Your task to perform on an android device: Show me popular games on the Play Store Image 0: 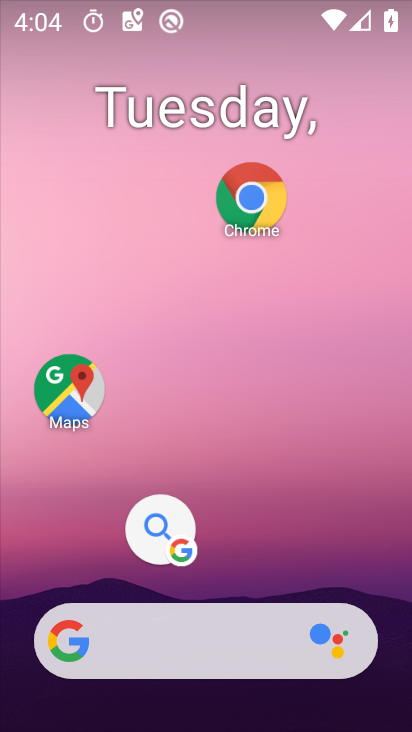
Step 0: drag from (183, 599) to (292, 163)
Your task to perform on an android device: Show me popular games on the Play Store Image 1: 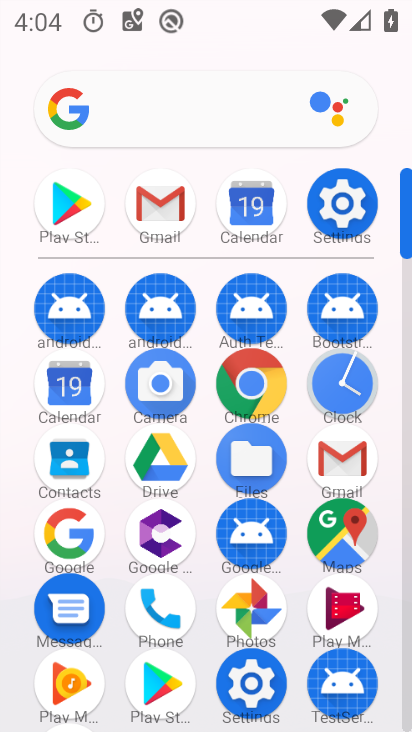
Step 1: click (156, 683)
Your task to perform on an android device: Show me popular games on the Play Store Image 2: 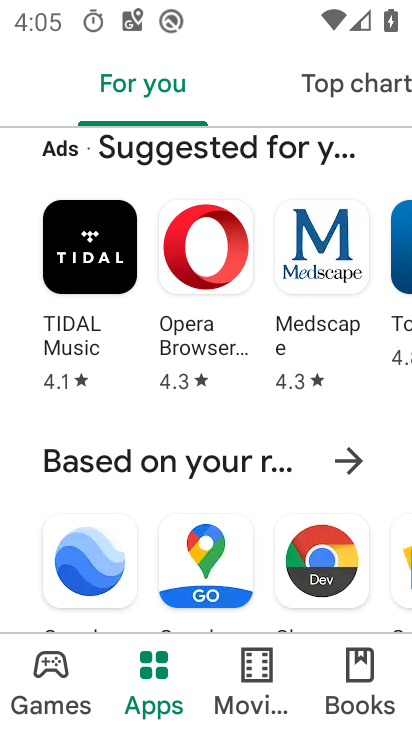
Step 2: press back button
Your task to perform on an android device: Show me popular games on the Play Store Image 3: 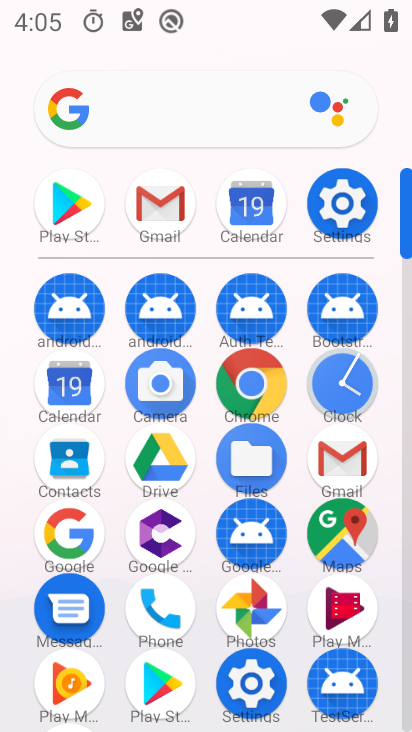
Step 3: click (73, 197)
Your task to perform on an android device: Show me popular games on the Play Store Image 4: 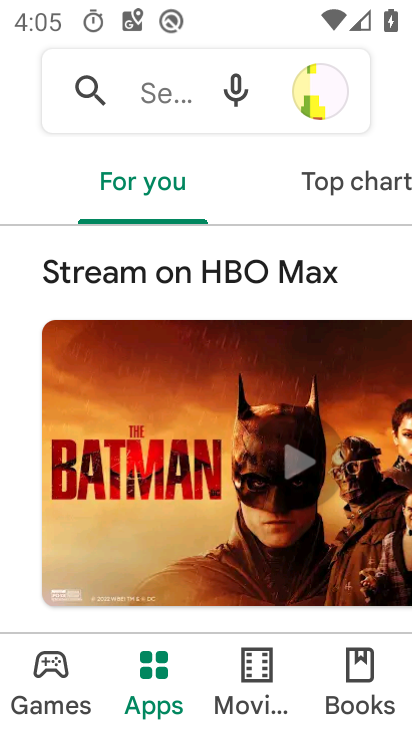
Step 4: click (197, 85)
Your task to perform on an android device: Show me popular games on the Play Store Image 5: 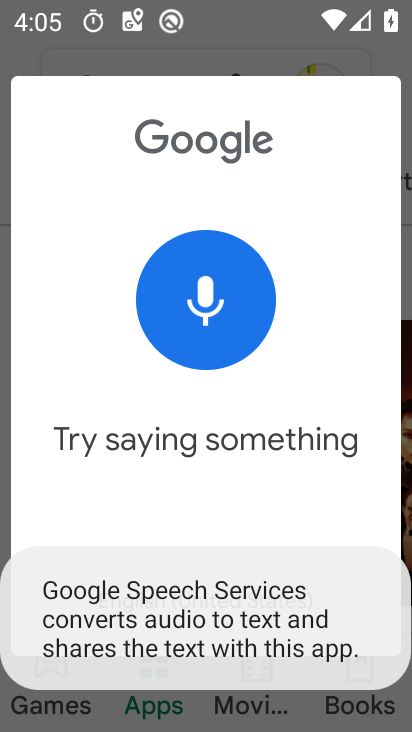
Step 5: click (204, 285)
Your task to perform on an android device: Show me popular games on the Play Store Image 6: 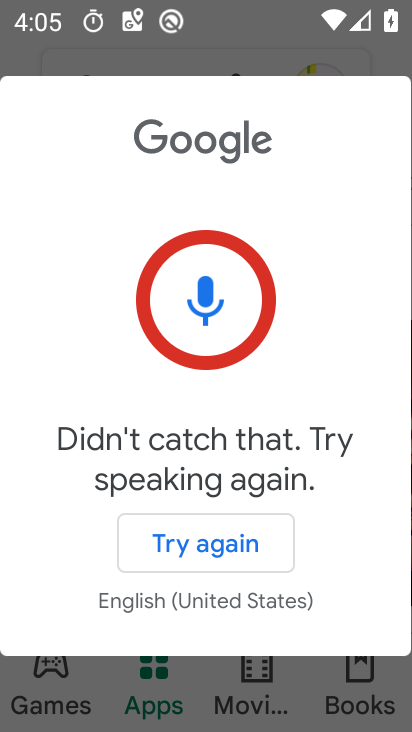
Step 6: click (191, 533)
Your task to perform on an android device: Show me popular games on the Play Store Image 7: 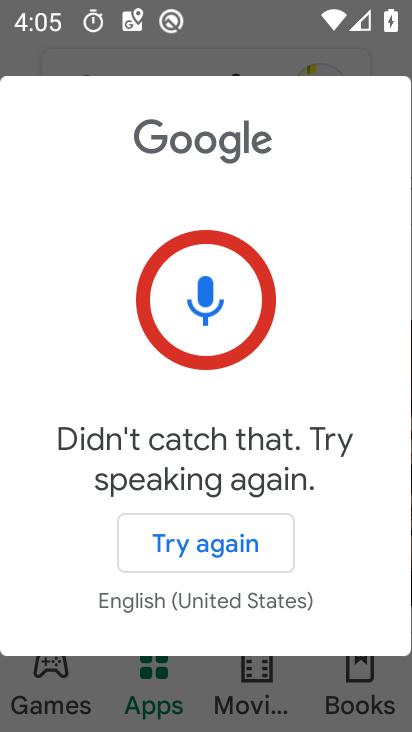
Step 7: click (296, 724)
Your task to perform on an android device: Show me popular games on the Play Store Image 8: 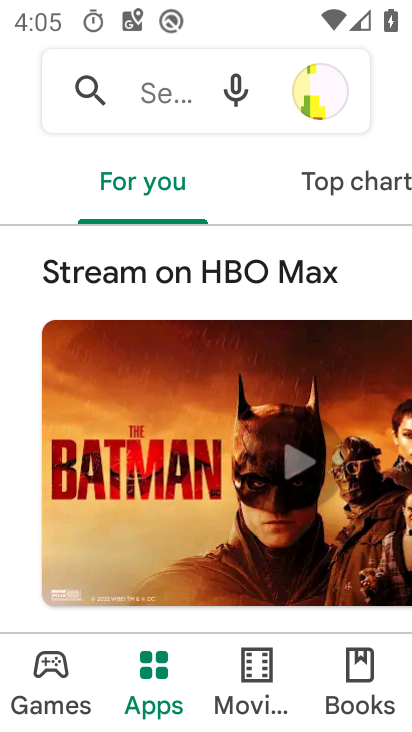
Step 8: click (173, 101)
Your task to perform on an android device: Show me popular games on the Play Store Image 9: 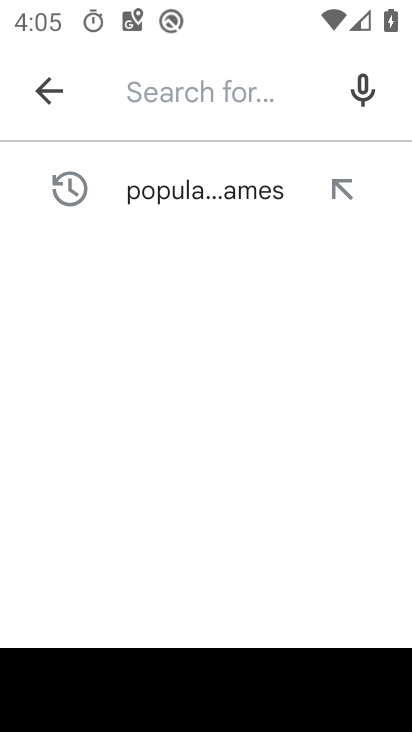
Step 9: click (189, 198)
Your task to perform on an android device: Show me popular games on the Play Store Image 10: 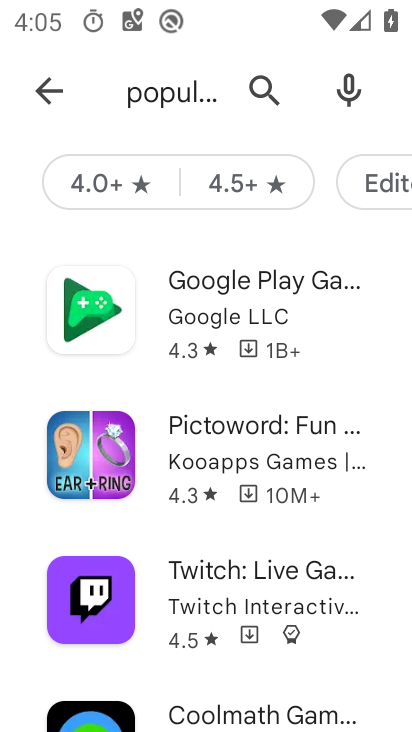
Step 10: task complete